Your task to perform on an android device: Open Google Maps and go to "Timeline" Image 0: 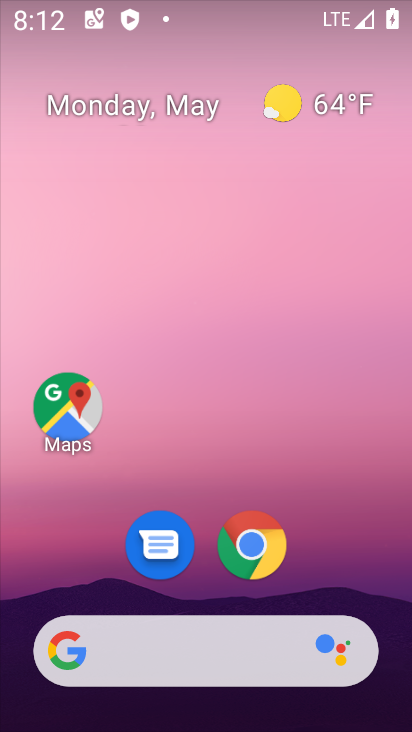
Step 0: click (68, 415)
Your task to perform on an android device: Open Google Maps and go to "Timeline" Image 1: 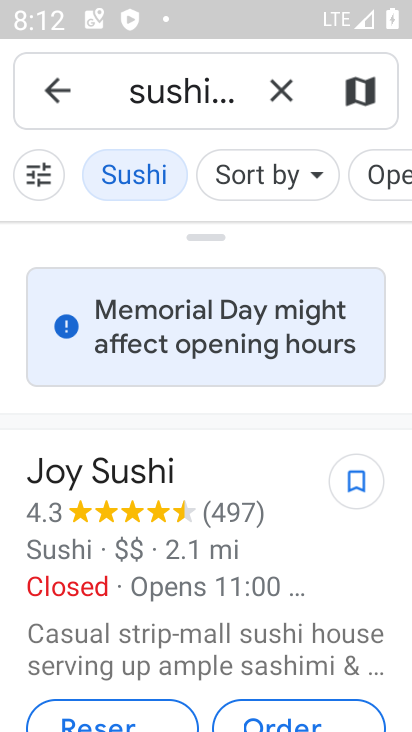
Step 1: click (62, 99)
Your task to perform on an android device: Open Google Maps and go to "Timeline" Image 2: 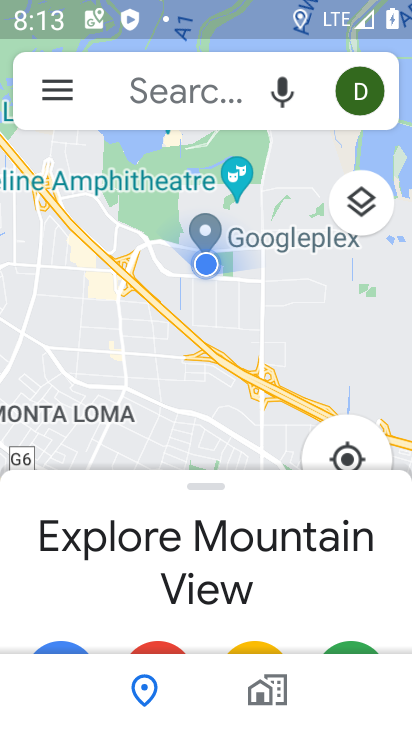
Step 2: click (62, 99)
Your task to perform on an android device: Open Google Maps and go to "Timeline" Image 3: 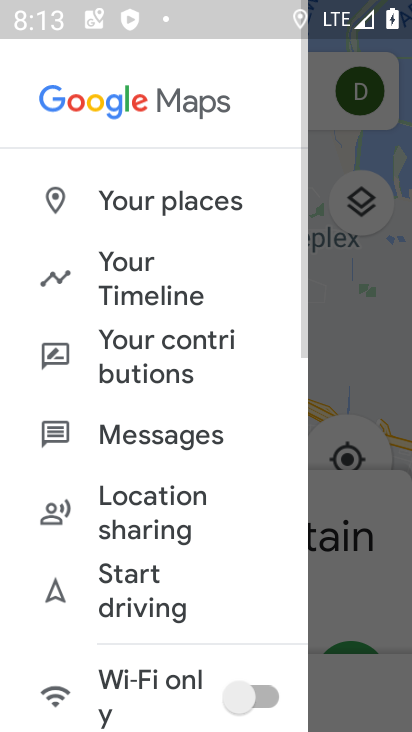
Step 3: click (140, 260)
Your task to perform on an android device: Open Google Maps and go to "Timeline" Image 4: 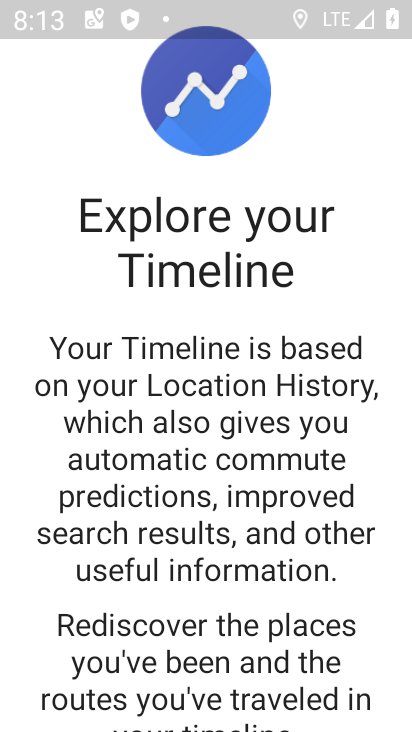
Step 4: drag from (221, 579) to (199, 45)
Your task to perform on an android device: Open Google Maps and go to "Timeline" Image 5: 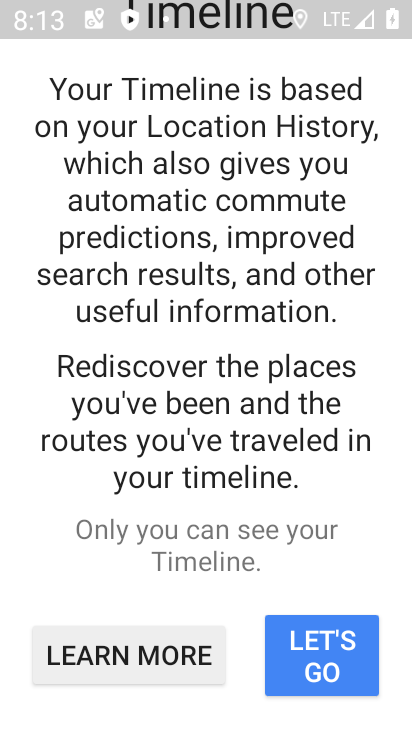
Step 5: click (295, 656)
Your task to perform on an android device: Open Google Maps and go to "Timeline" Image 6: 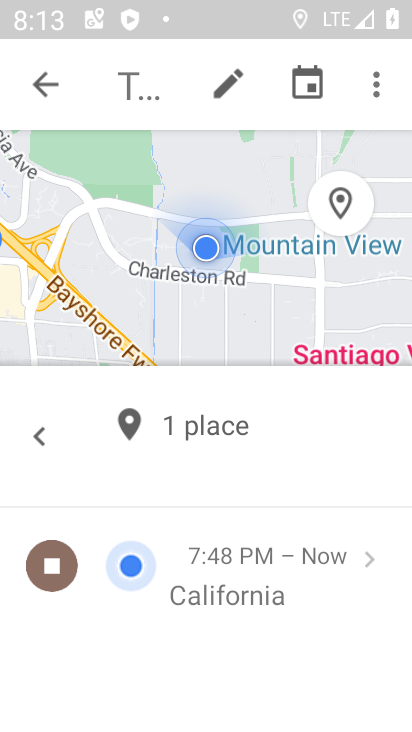
Step 6: task complete